Your task to perform on an android device: Do I have any events this weekend? Image 0: 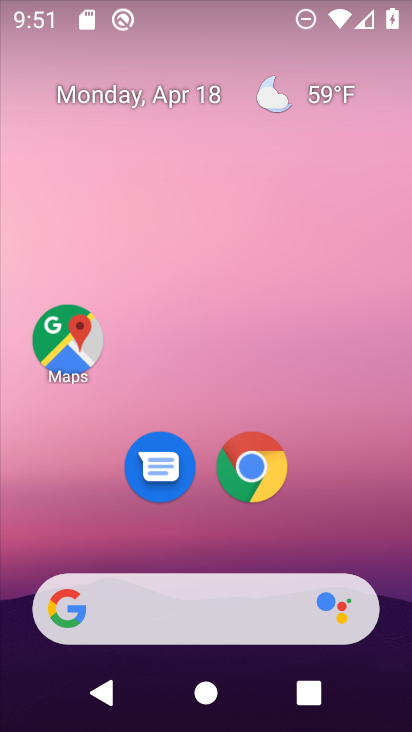
Step 0: drag from (196, 510) to (221, 39)
Your task to perform on an android device: Do I have any events this weekend? Image 1: 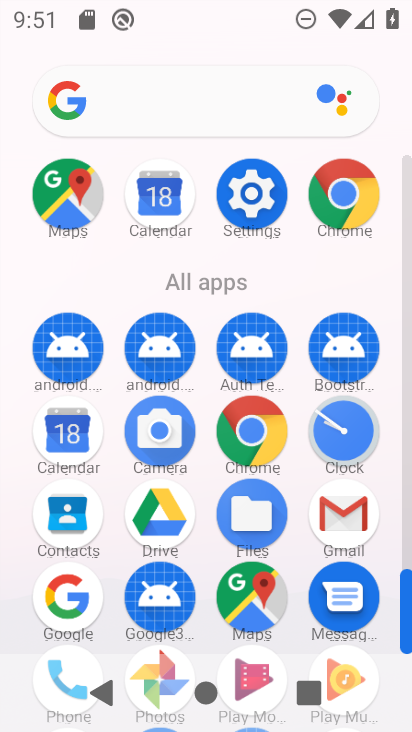
Step 1: click (68, 453)
Your task to perform on an android device: Do I have any events this weekend? Image 2: 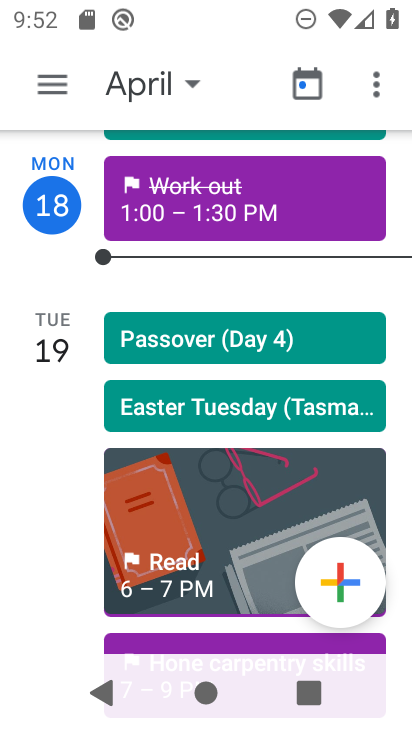
Step 2: task complete